Your task to perform on an android device: show emergency info Image 0: 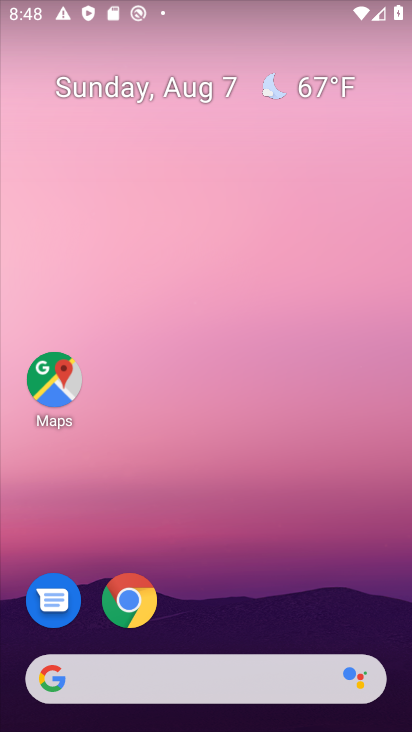
Step 0: drag from (204, 602) to (213, 175)
Your task to perform on an android device: show emergency info Image 1: 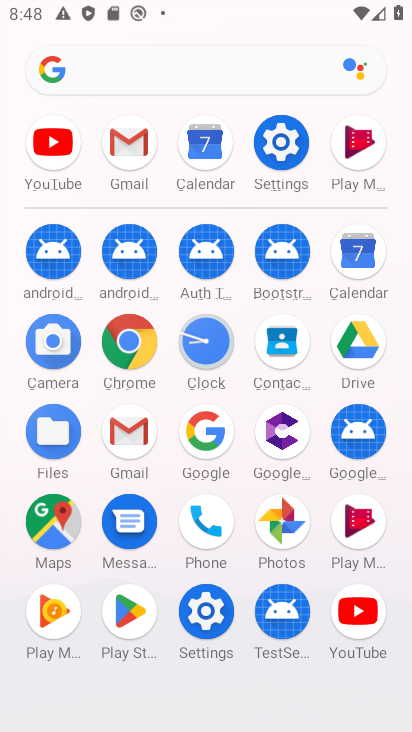
Step 1: click (281, 147)
Your task to perform on an android device: show emergency info Image 2: 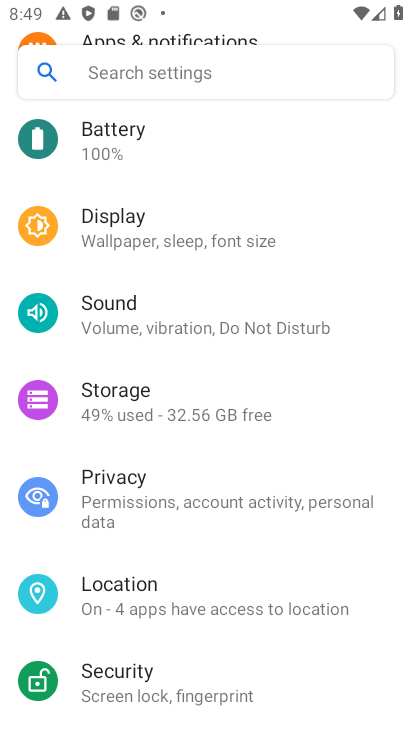
Step 2: drag from (152, 542) to (149, 193)
Your task to perform on an android device: show emergency info Image 3: 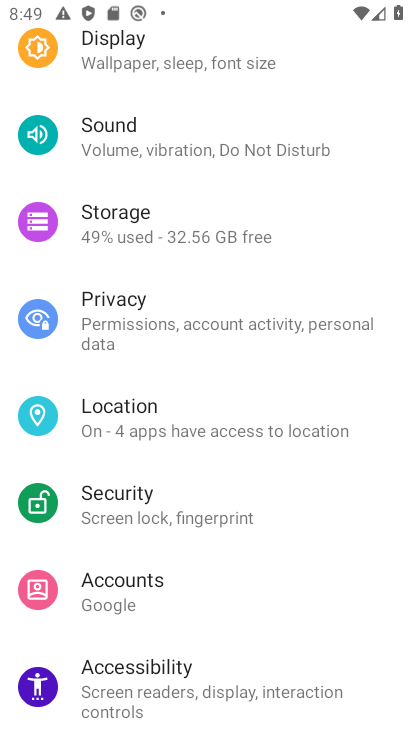
Step 3: drag from (212, 510) to (215, 149)
Your task to perform on an android device: show emergency info Image 4: 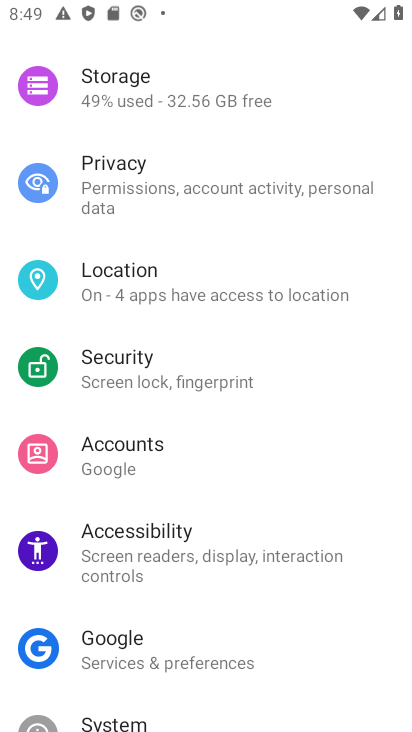
Step 4: drag from (110, 678) to (121, 153)
Your task to perform on an android device: show emergency info Image 5: 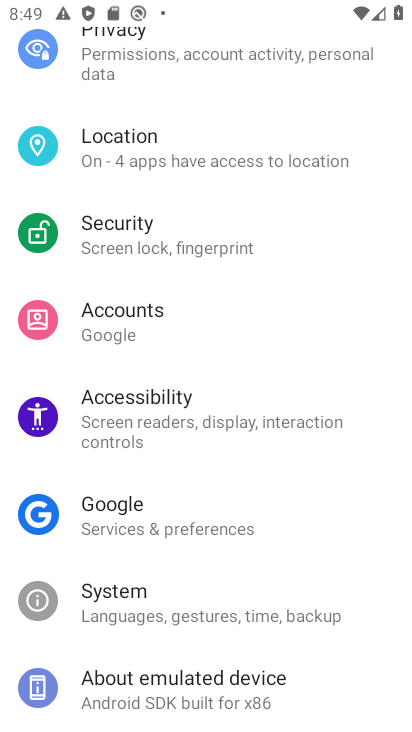
Step 5: click (109, 691)
Your task to perform on an android device: show emergency info Image 6: 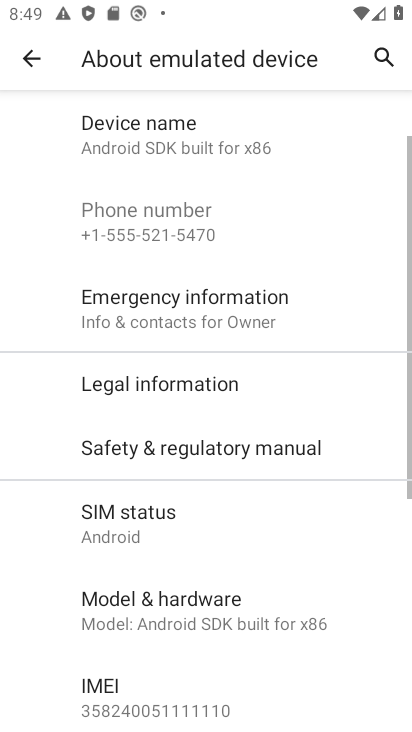
Step 6: click (183, 295)
Your task to perform on an android device: show emergency info Image 7: 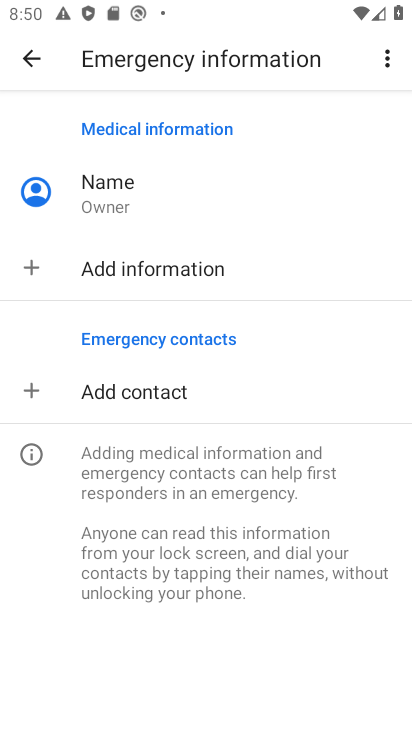
Step 7: task complete